Your task to perform on an android device: Open sound settings Image 0: 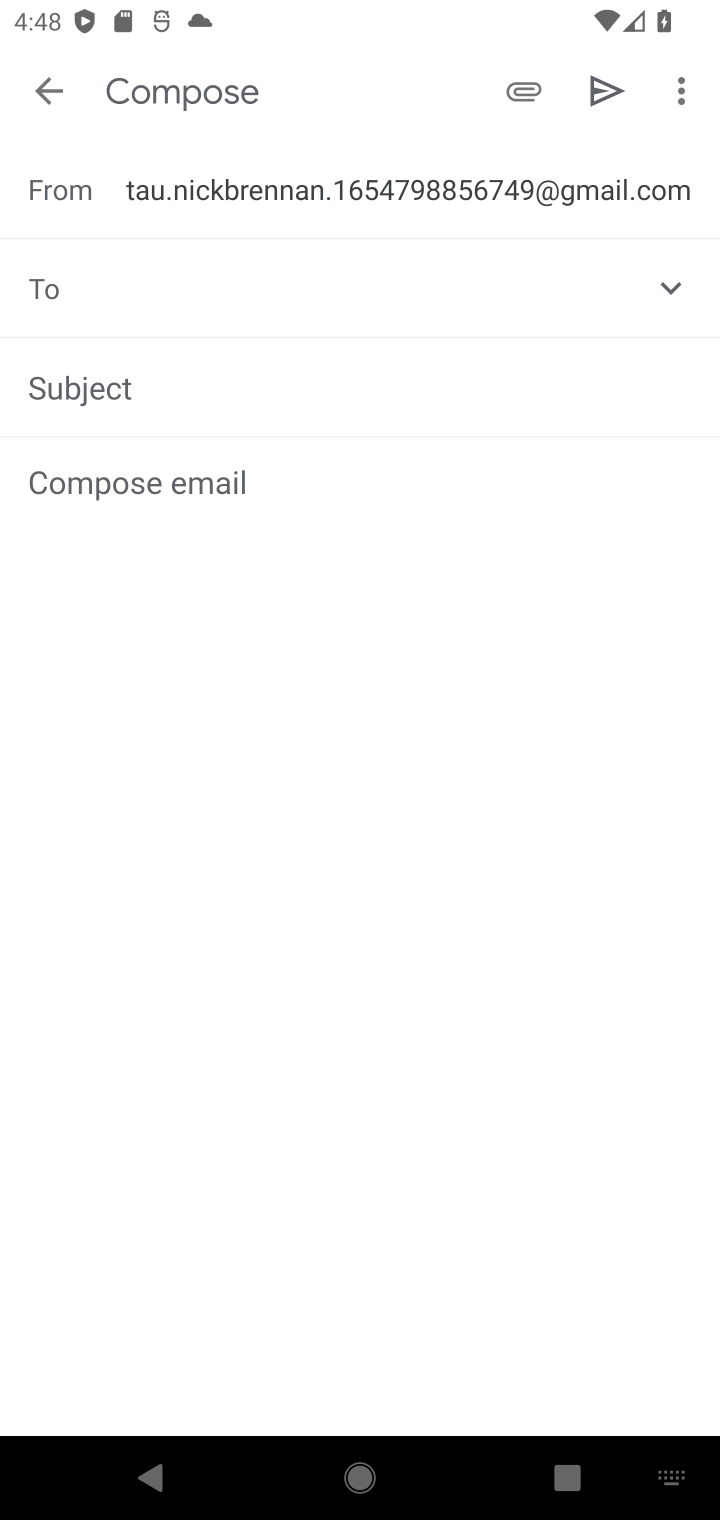
Step 0: press home button
Your task to perform on an android device: Open sound settings Image 1: 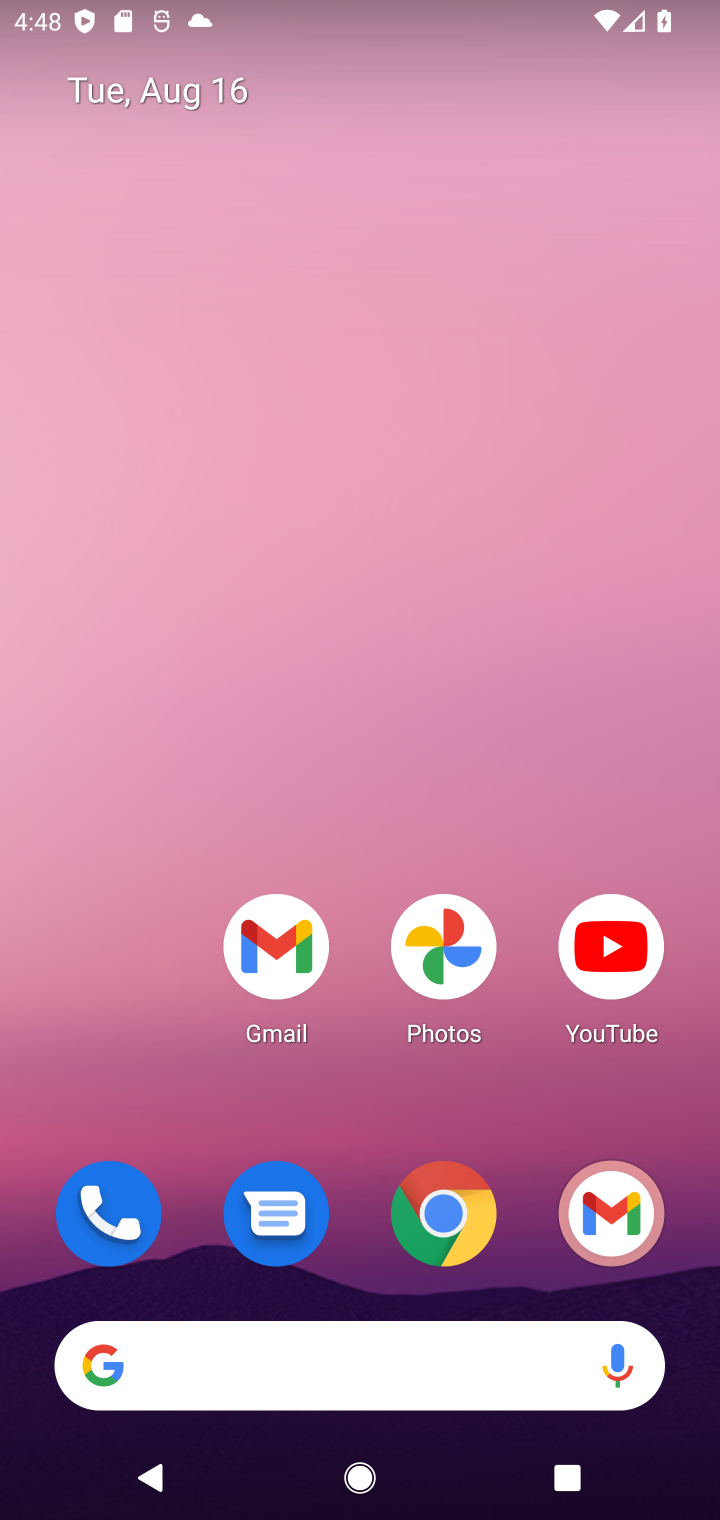
Step 1: drag from (406, 932) to (435, 20)
Your task to perform on an android device: Open sound settings Image 2: 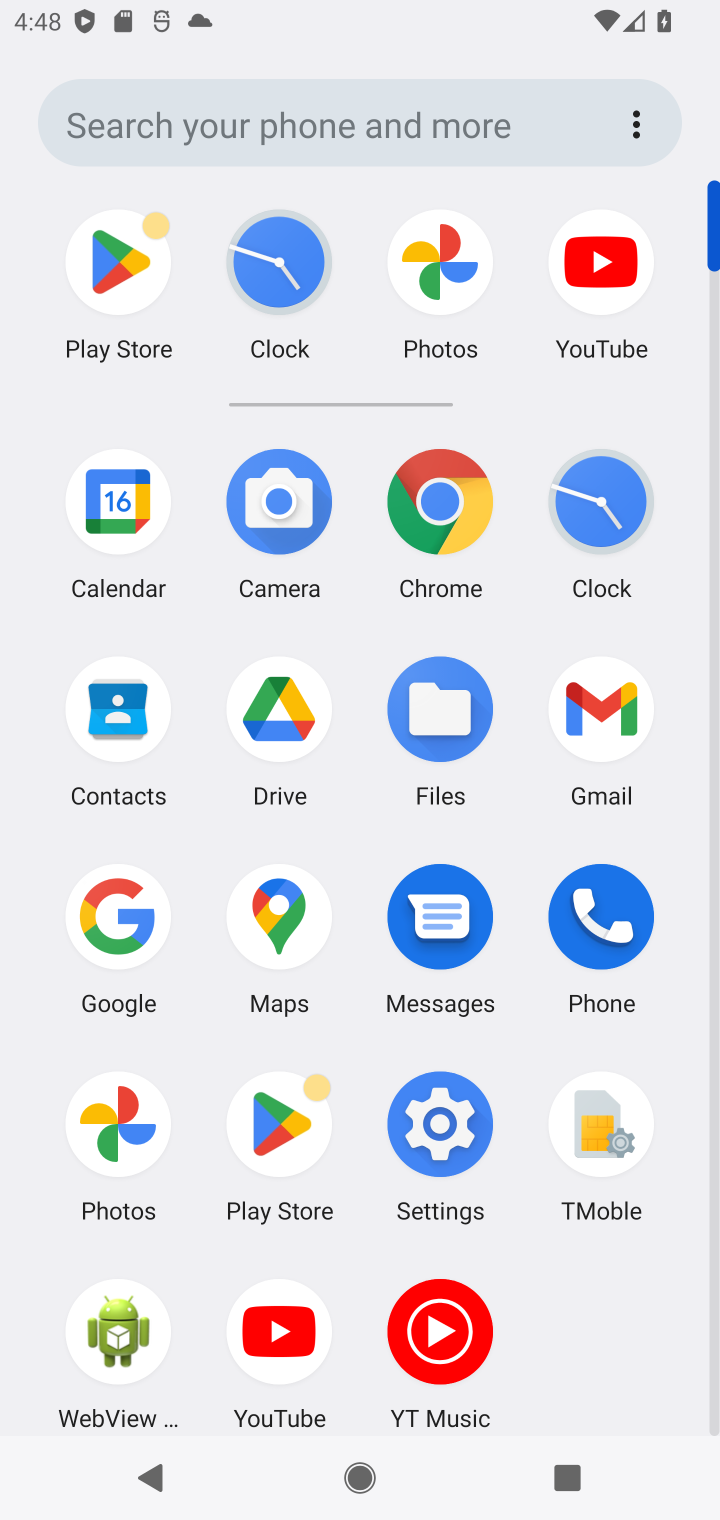
Step 2: click (444, 1112)
Your task to perform on an android device: Open sound settings Image 3: 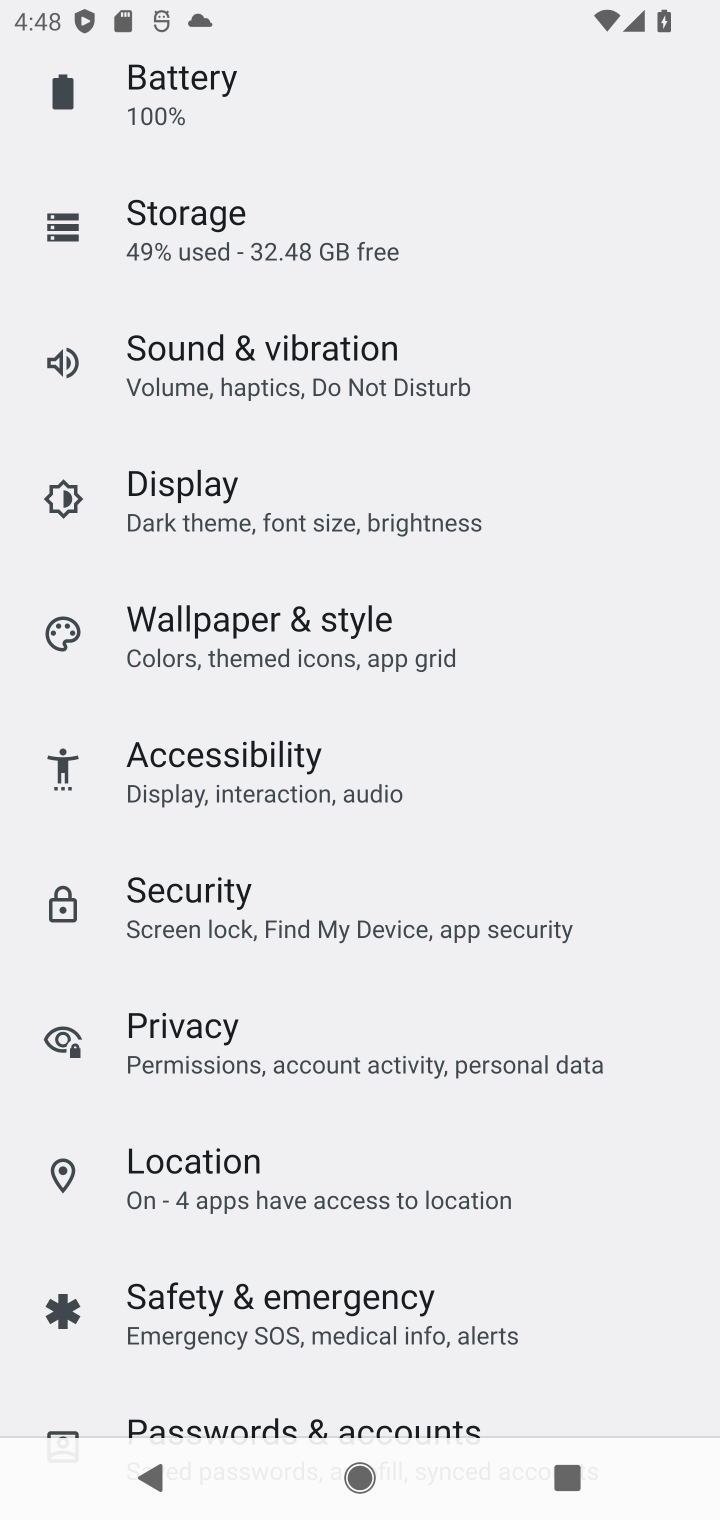
Step 3: click (306, 361)
Your task to perform on an android device: Open sound settings Image 4: 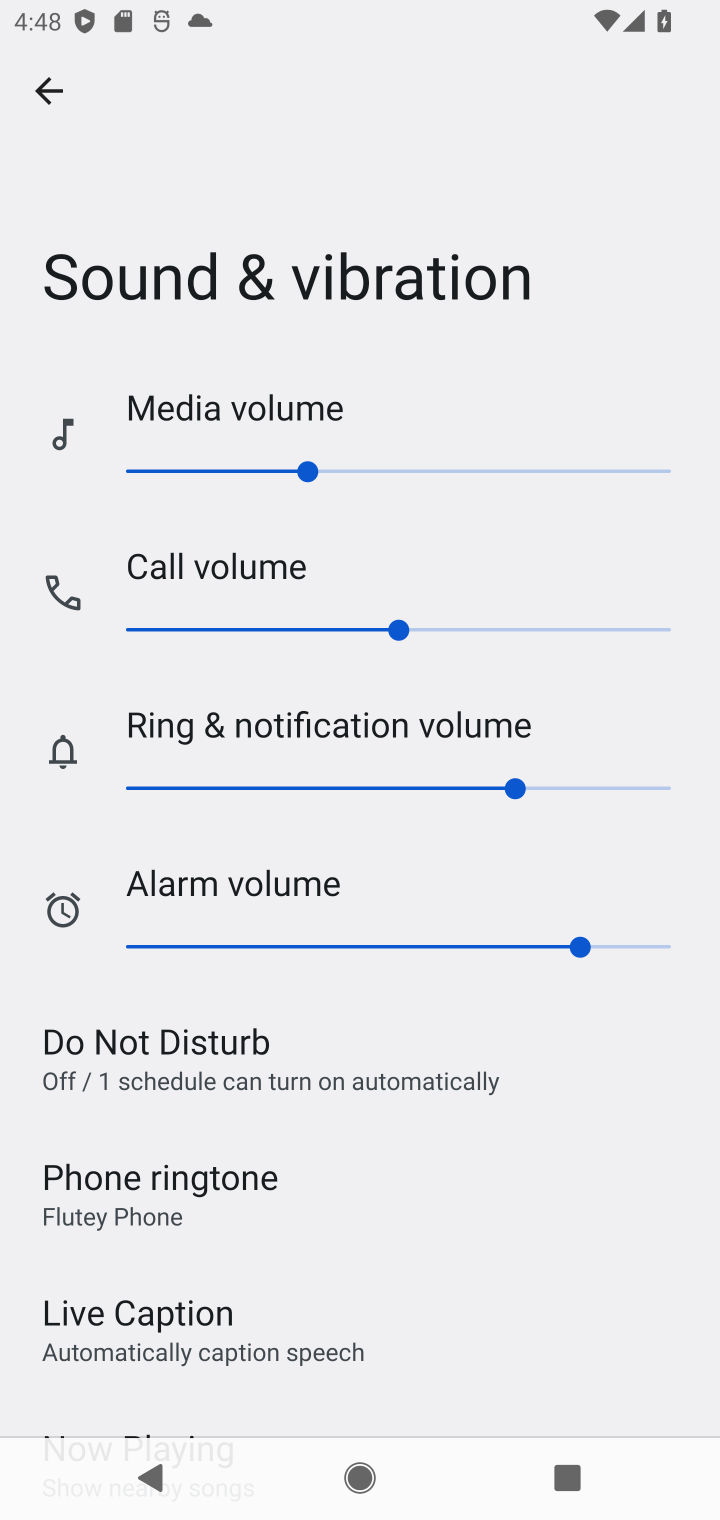
Step 4: task complete